Your task to perform on an android device: toggle show notifications on the lock screen Image 0: 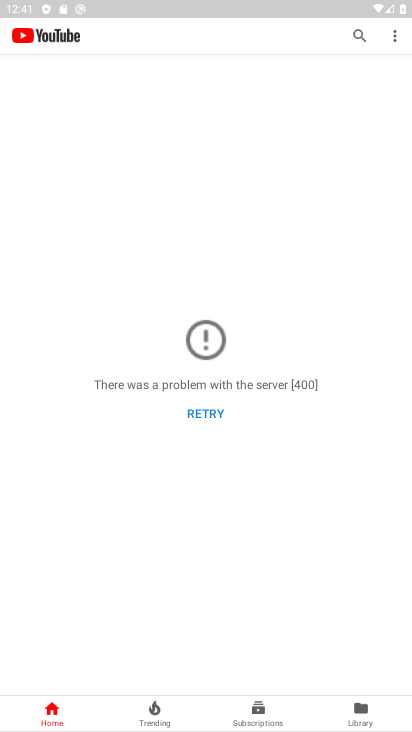
Step 0: press home button
Your task to perform on an android device: toggle show notifications on the lock screen Image 1: 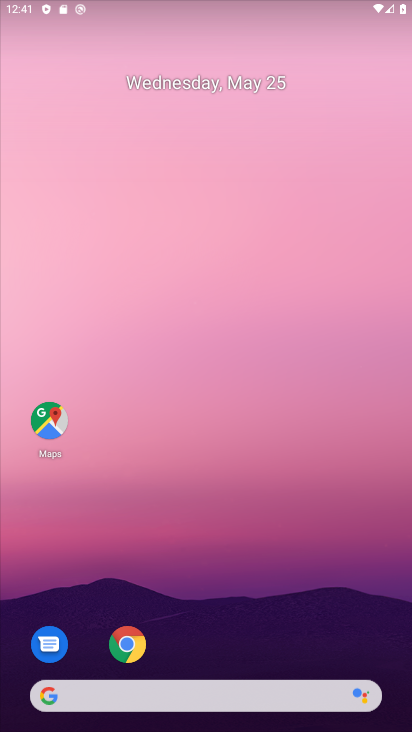
Step 1: click (197, 701)
Your task to perform on an android device: toggle show notifications on the lock screen Image 2: 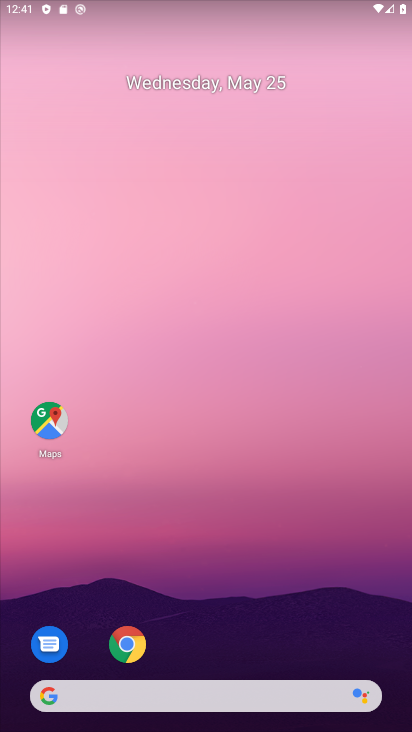
Step 2: click (197, 698)
Your task to perform on an android device: toggle show notifications on the lock screen Image 3: 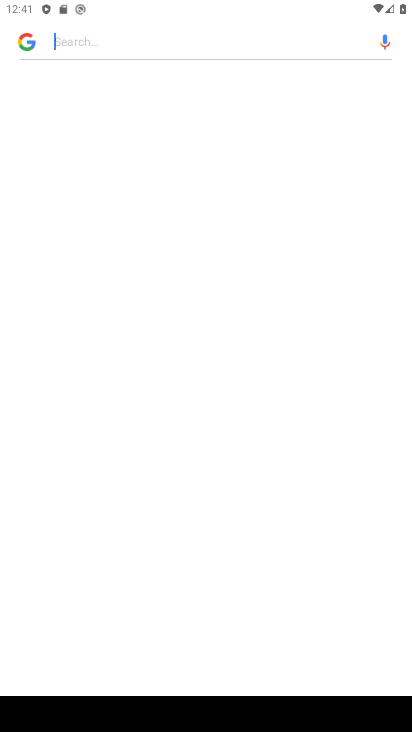
Step 3: press home button
Your task to perform on an android device: toggle show notifications on the lock screen Image 4: 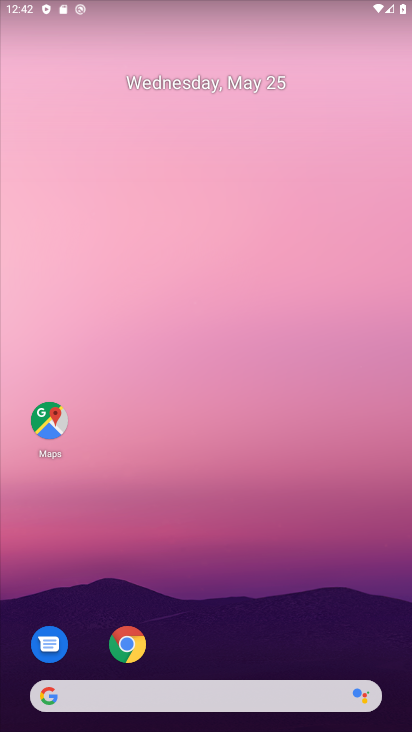
Step 4: drag from (203, 646) to (268, 138)
Your task to perform on an android device: toggle show notifications on the lock screen Image 5: 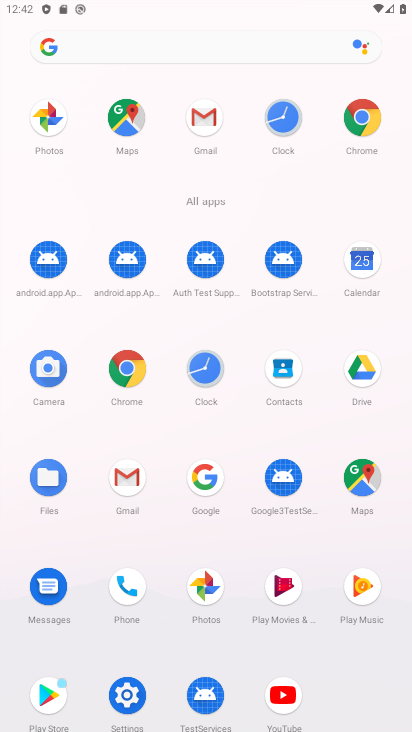
Step 5: click (125, 703)
Your task to perform on an android device: toggle show notifications on the lock screen Image 6: 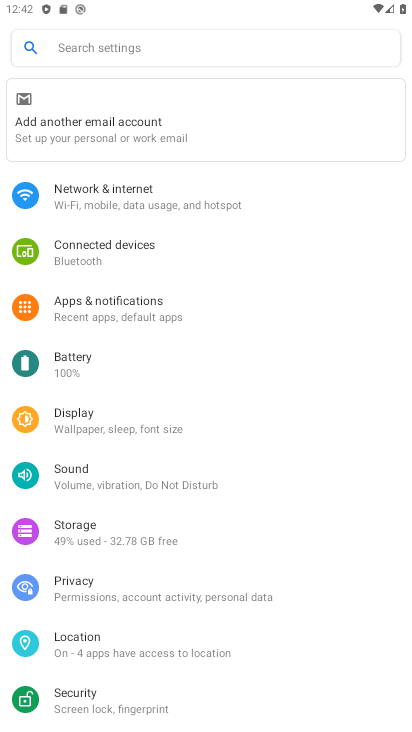
Step 6: click (77, 305)
Your task to perform on an android device: toggle show notifications on the lock screen Image 7: 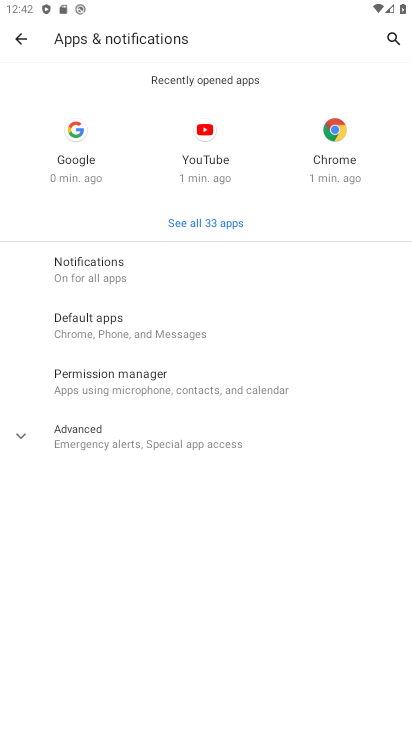
Step 7: click (98, 287)
Your task to perform on an android device: toggle show notifications on the lock screen Image 8: 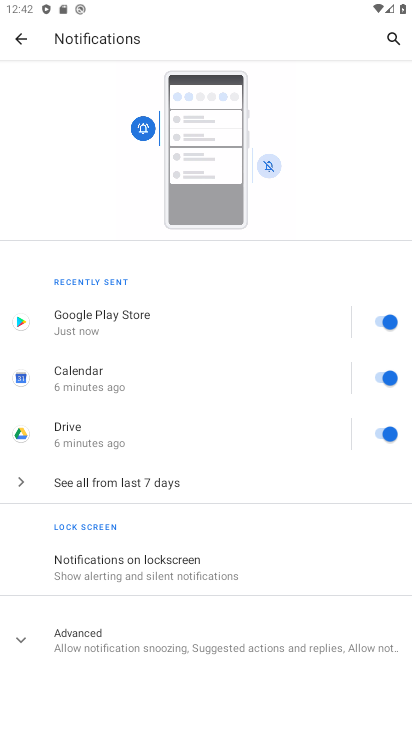
Step 8: click (109, 577)
Your task to perform on an android device: toggle show notifications on the lock screen Image 9: 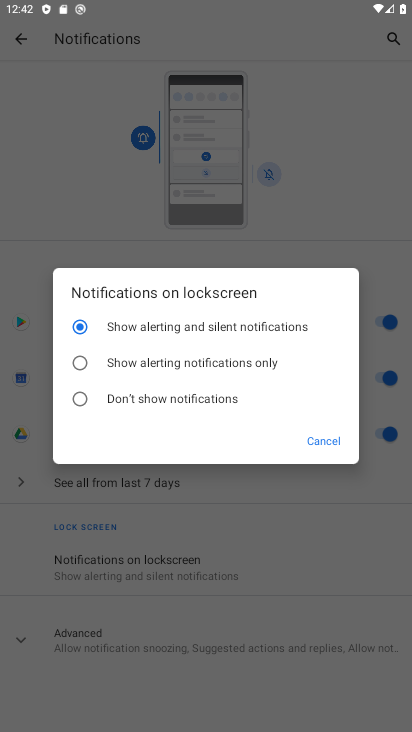
Step 9: click (86, 396)
Your task to perform on an android device: toggle show notifications on the lock screen Image 10: 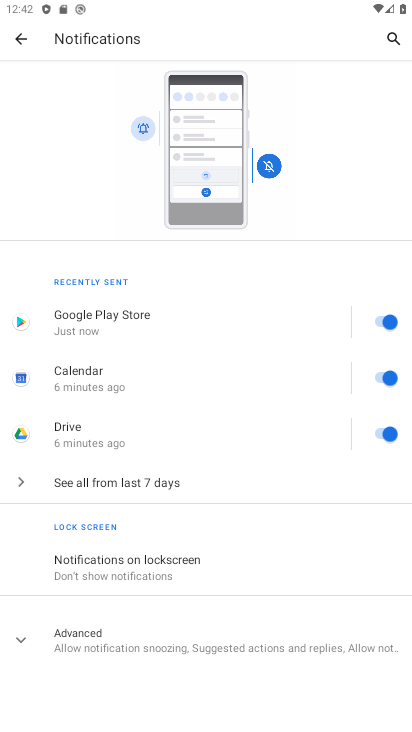
Step 10: task complete